Your task to perform on an android device: Open settings Image 0: 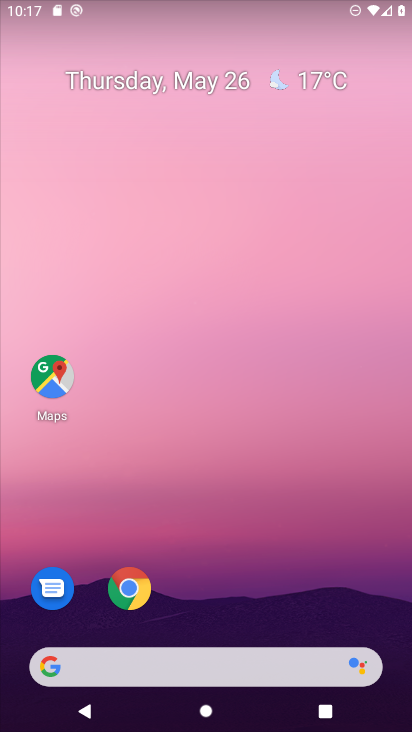
Step 0: drag from (398, 653) to (309, 172)
Your task to perform on an android device: Open settings Image 1: 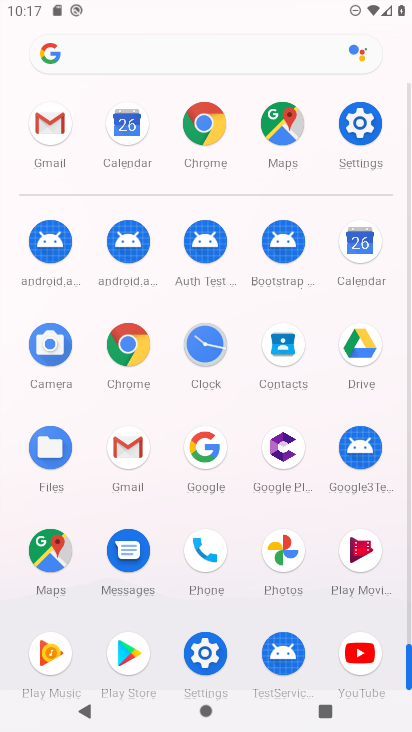
Step 1: click (205, 654)
Your task to perform on an android device: Open settings Image 2: 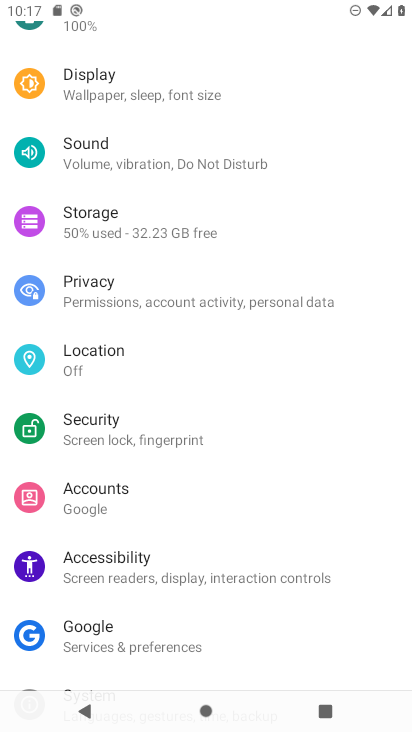
Step 2: task complete